Your task to perform on an android device: Open Reddit.com Image 0: 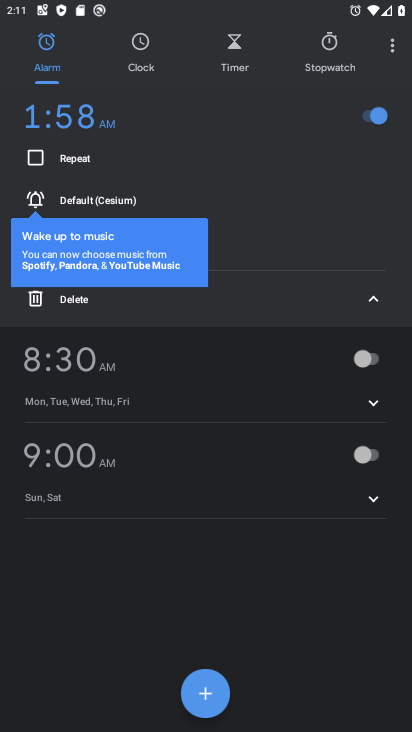
Step 0: drag from (345, 604) to (329, 295)
Your task to perform on an android device: Open Reddit.com Image 1: 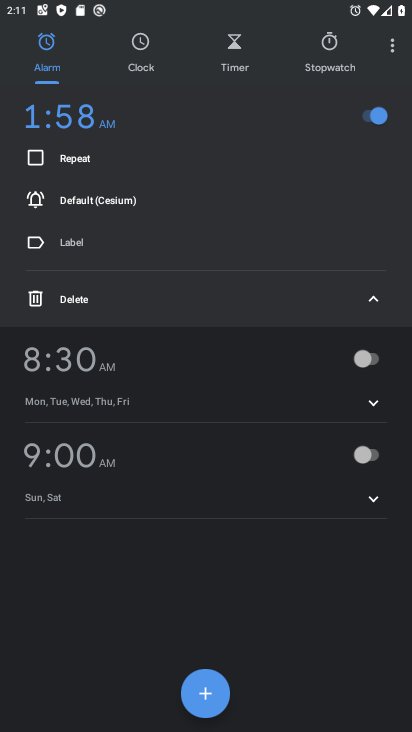
Step 1: press home button
Your task to perform on an android device: Open Reddit.com Image 2: 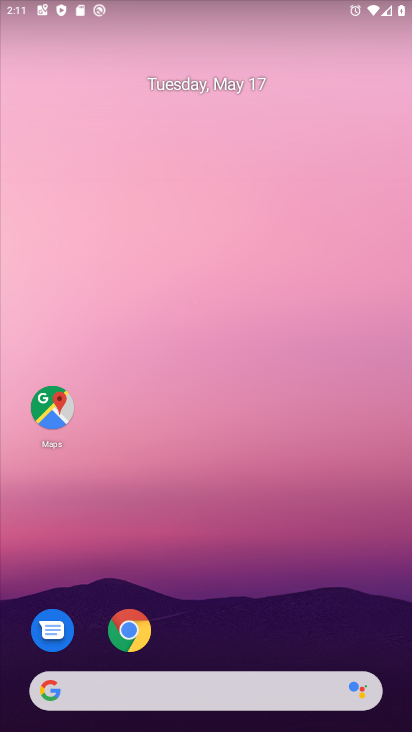
Step 2: drag from (324, 612) to (295, 129)
Your task to perform on an android device: Open Reddit.com Image 3: 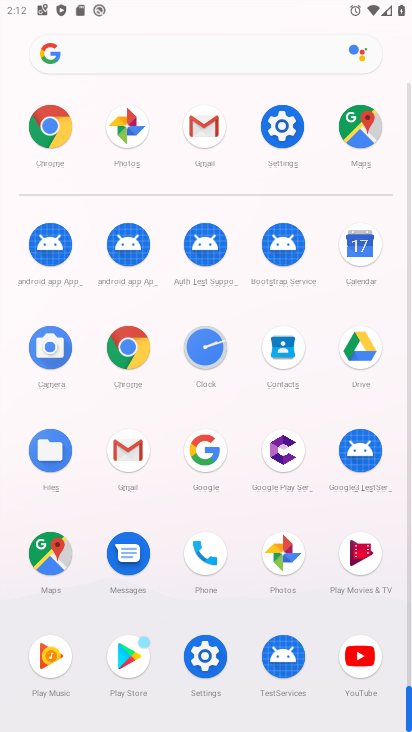
Step 3: click (135, 335)
Your task to perform on an android device: Open Reddit.com Image 4: 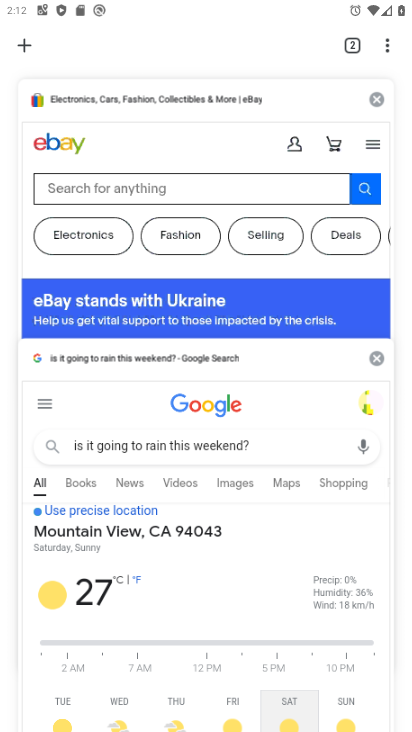
Step 4: click (17, 44)
Your task to perform on an android device: Open Reddit.com Image 5: 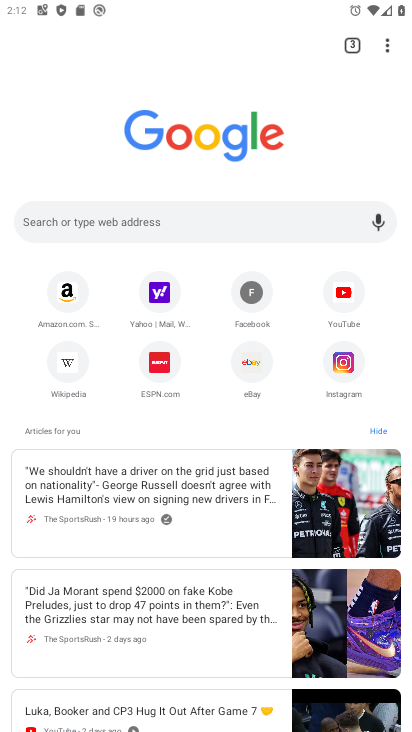
Step 5: click (152, 228)
Your task to perform on an android device: Open Reddit.com Image 6: 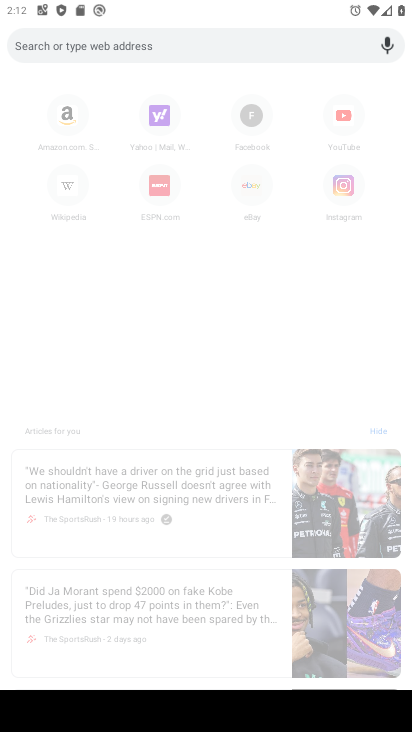
Step 6: type "reddit.com"
Your task to perform on an android device: Open Reddit.com Image 7: 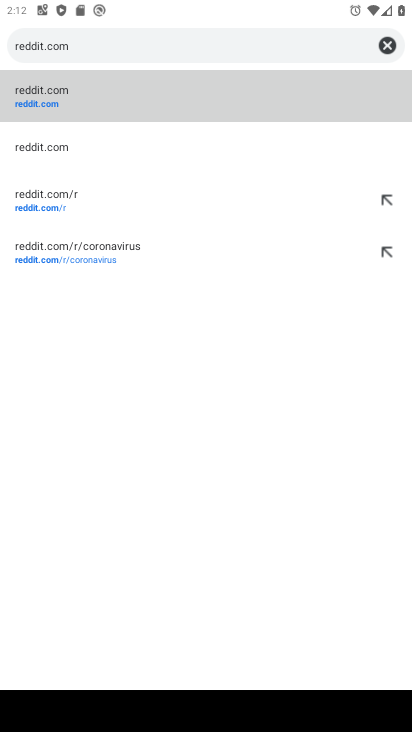
Step 7: click (43, 97)
Your task to perform on an android device: Open Reddit.com Image 8: 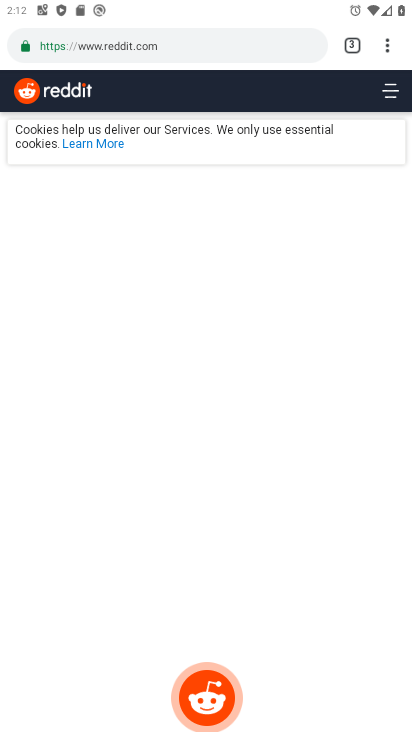
Step 8: task complete